Your task to perform on an android device: What's the weather? Image 0: 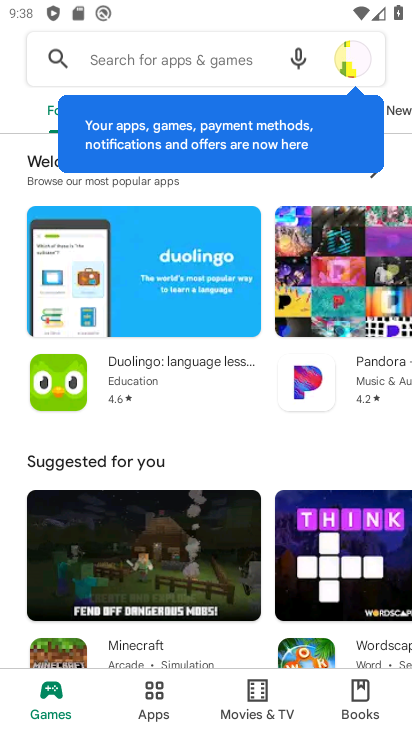
Step 0: press home button
Your task to perform on an android device: What's the weather? Image 1: 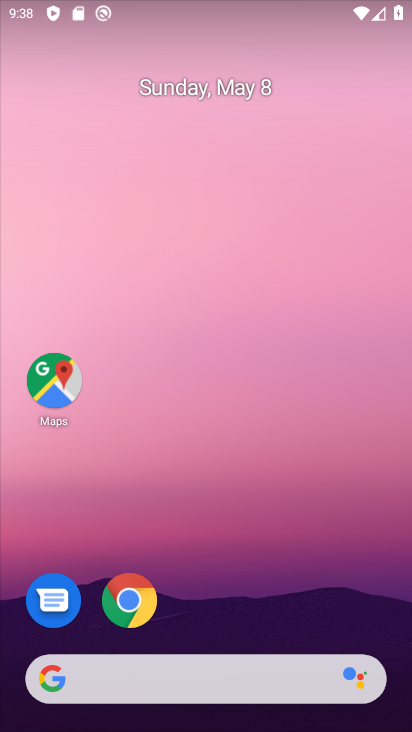
Step 1: click (134, 626)
Your task to perform on an android device: What's the weather? Image 2: 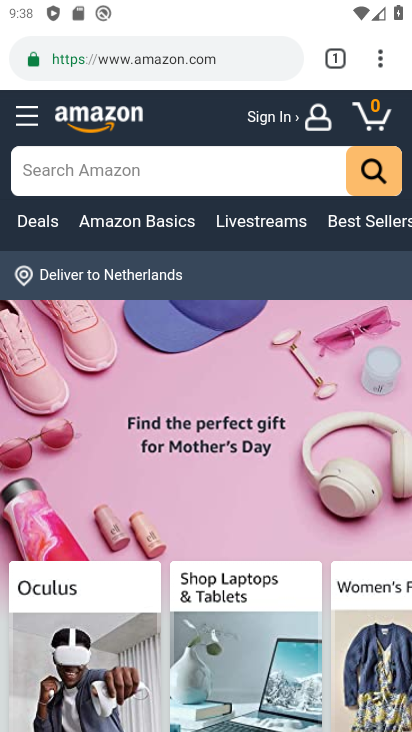
Step 2: click (132, 72)
Your task to perform on an android device: What's the weather? Image 3: 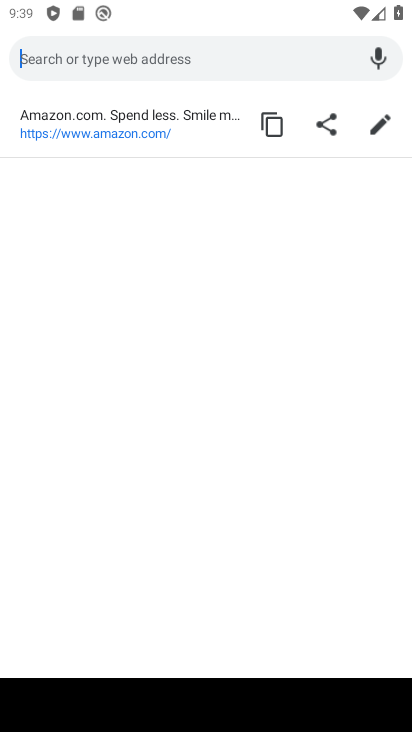
Step 3: type "whats the weather"
Your task to perform on an android device: What's the weather? Image 4: 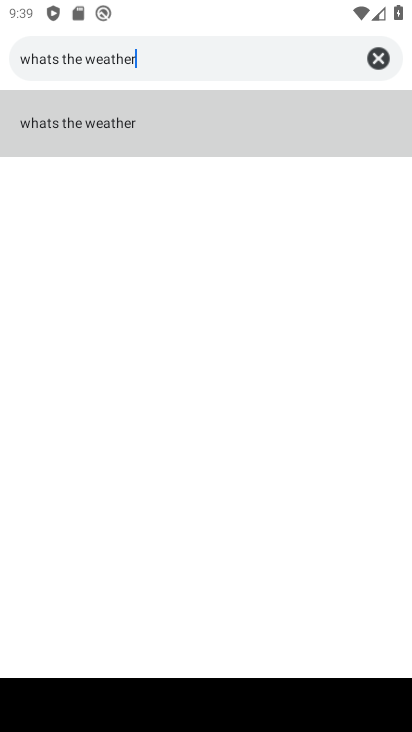
Step 4: click (108, 115)
Your task to perform on an android device: What's the weather? Image 5: 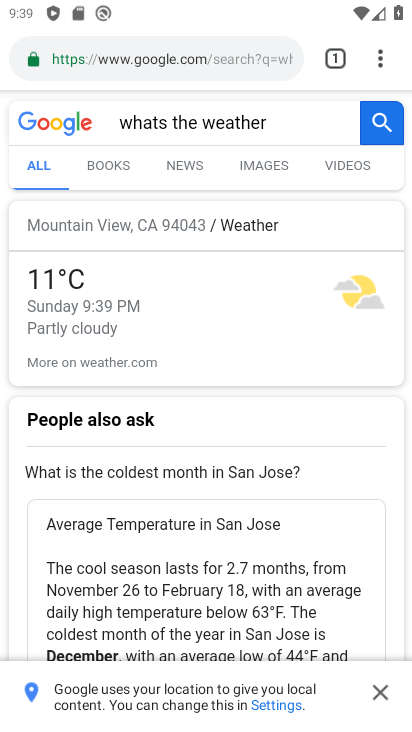
Step 5: task complete